Your task to perform on an android device: Is it going to rain today? Image 0: 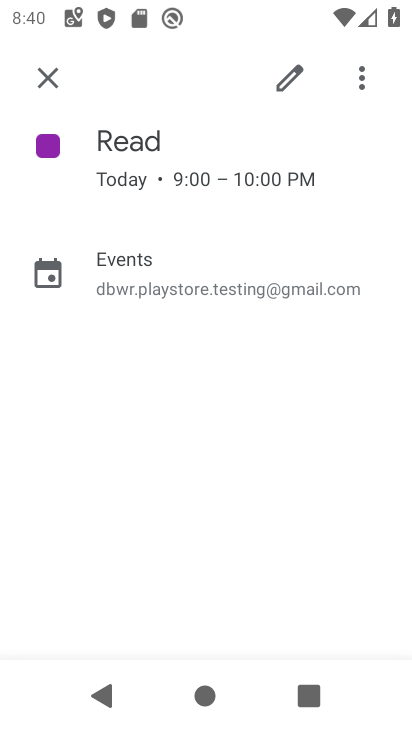
Step 0: press home button
Your task to perform on an android device: Is it going to rain today? Image 1: 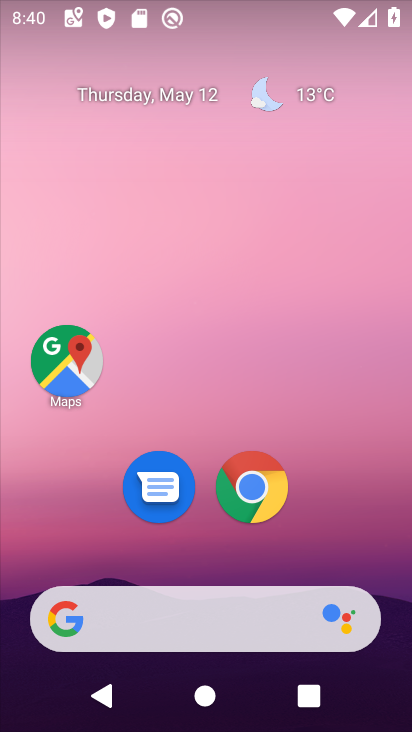
Step 1: click (308, 99)
Your task to perform on an android device: Is it going to rain today? Image 2: 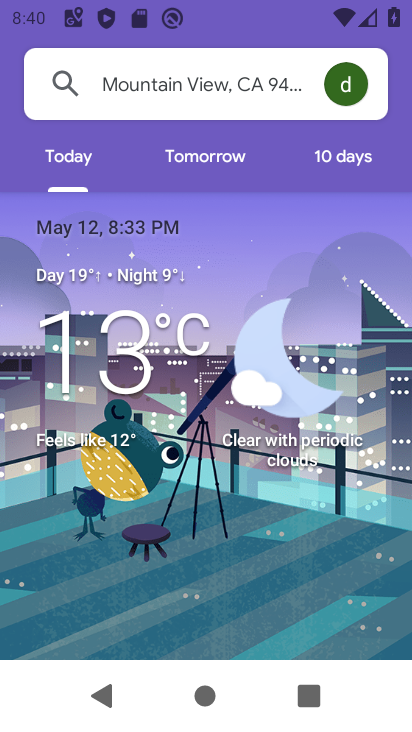
Step 2: task complete